Your task to perform on an android device: turn on sleep mode Image 0: 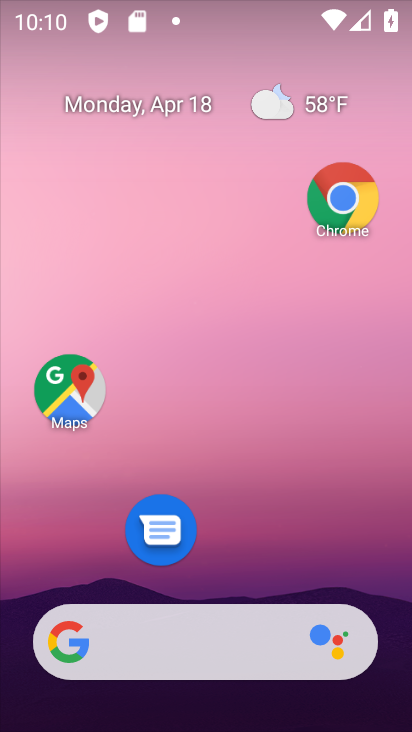
Step 0: drag from (143, 583) to (172, 256)
Your task to perform on an android device: turn on sleep mode Image 1: 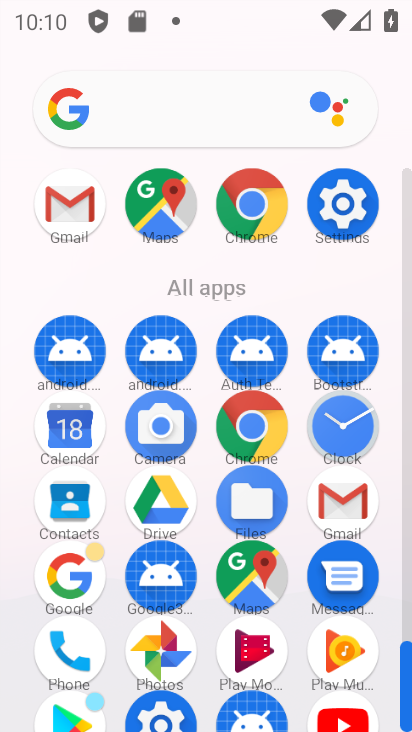
Step 1: click (344, 214)
Your task to perform on an android device: turn on sleep mode Image 2: 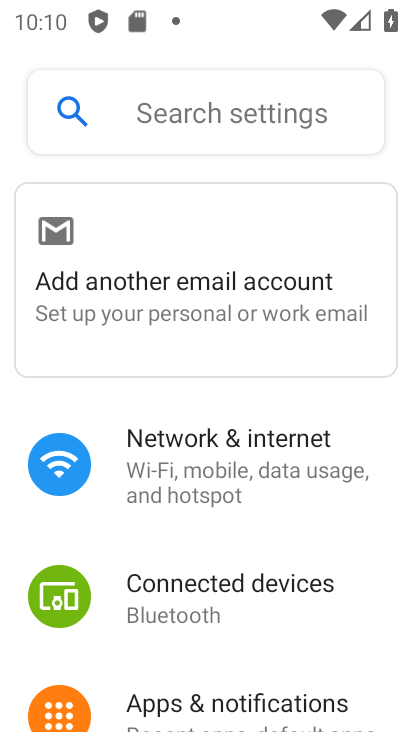
Step 2: drag from (245, 554) to (271, 273)
Your task to perform on an android device: turn on sleep mode Image 3: 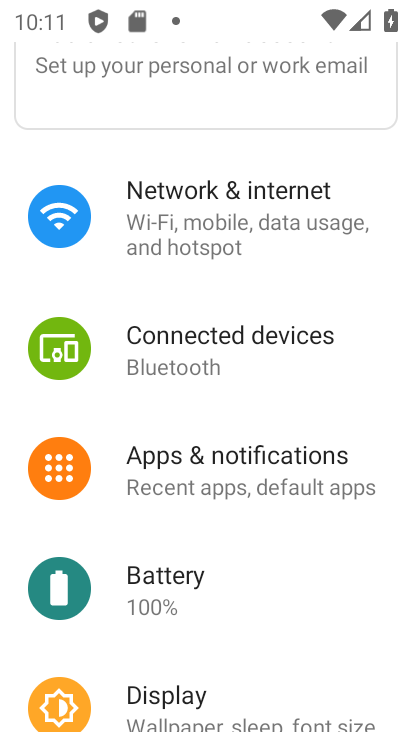
Step 3: drag from (226, 510) to (263, 346)
Your task to perform on an android device: turn on sleep mode Image 4: 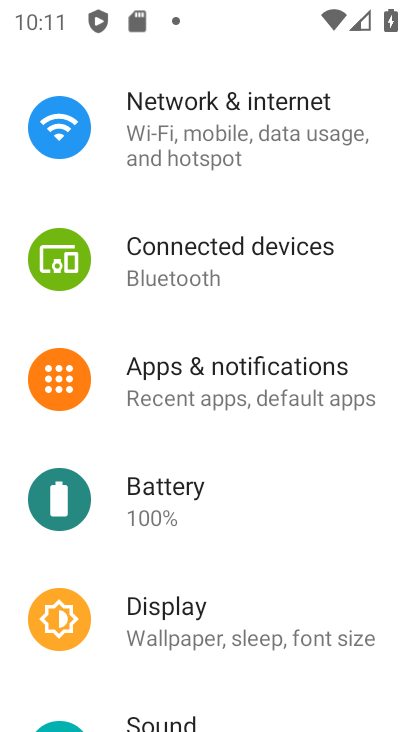
Step 4: click (209, 608)
Your task to perform on an android device: turn on sleep mode Image 5: 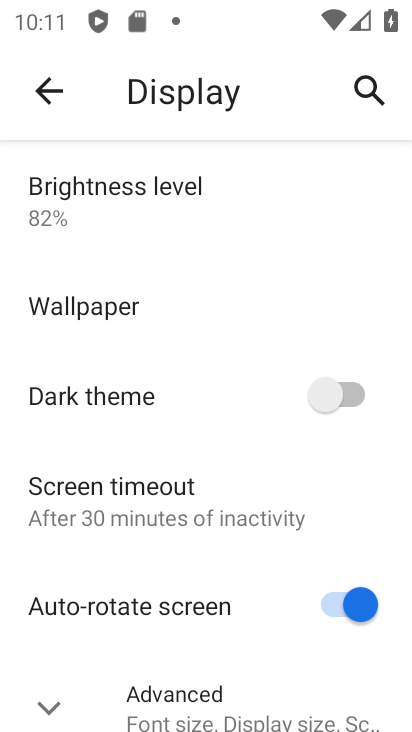
Step 5: task complete